Your task to perform on an android device: What's on my calendar today? Image 0: 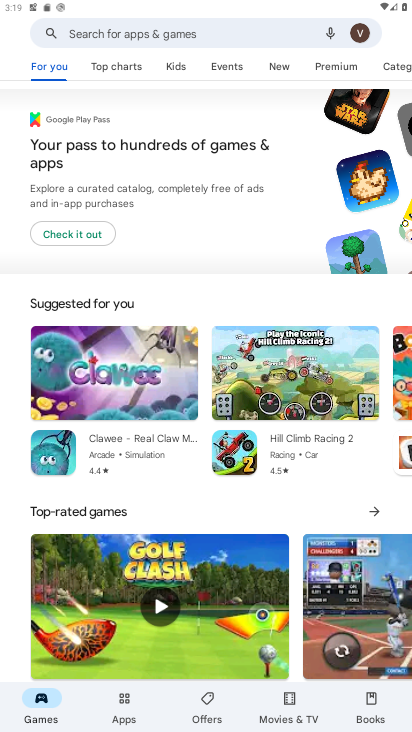
Step 0: press home button
Your task to perform on an android device: What's on my calendar today? Image 1: 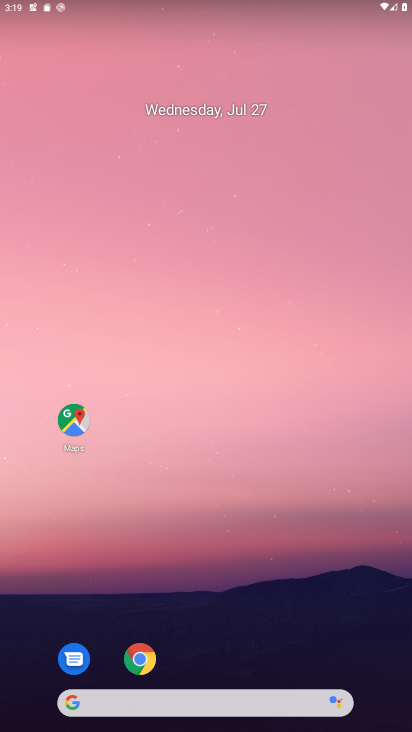
Step 1: drag from (174, 575) to (172, 143)
Your task to perform on an android device: What's on my calendar today? Image 2: 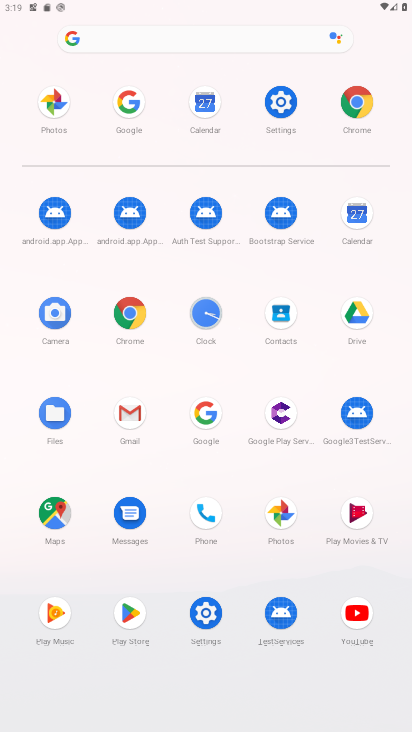
Step 2: click (360, 215)
Your task to perform on an android device: What's on my calendar today? Image 3: 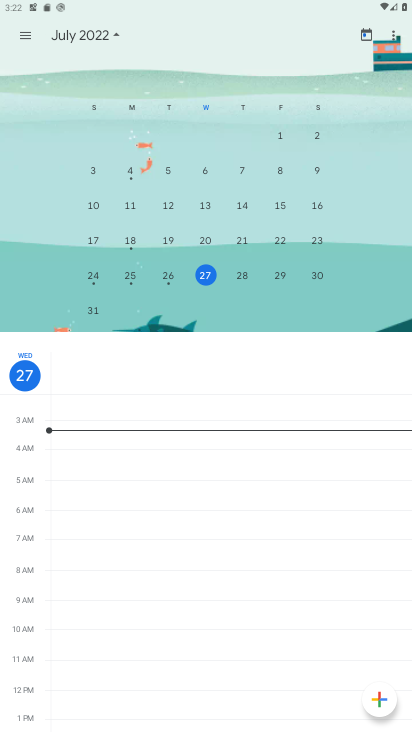
Step 3: task complete